Your task to perform on an android device: Search for a 4k TV on Best Buy Image 0: 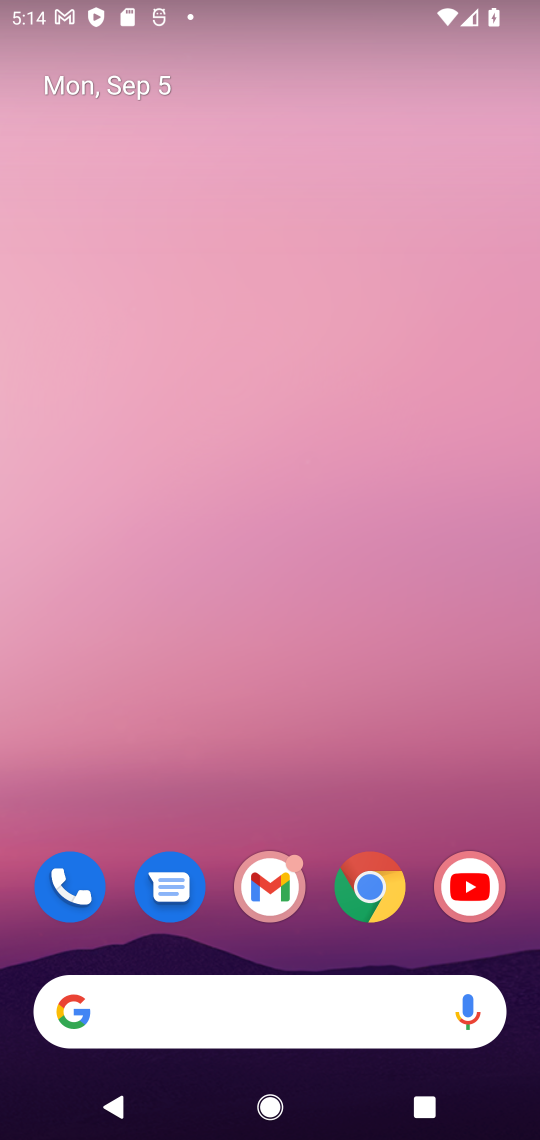
Step 0: drag from (278, 644) to (210, 70)
Your task to perform on an android device: Search for a 4k TV on Best Buy Image 1: 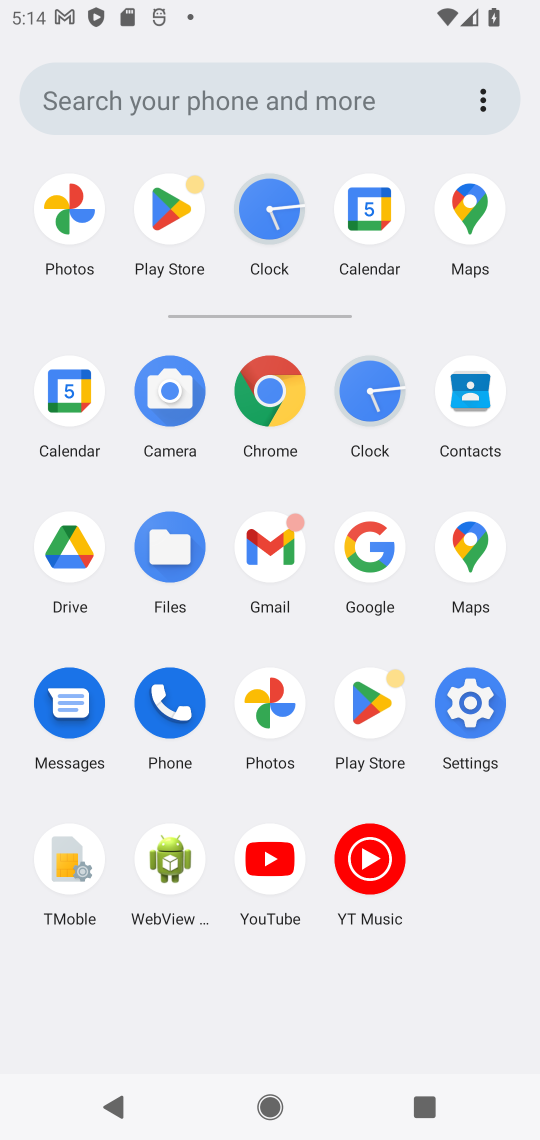
Step 1: click (269, 392)
Your task to perform on an android device: Search for a 4k TV on Best Buy Image 2: 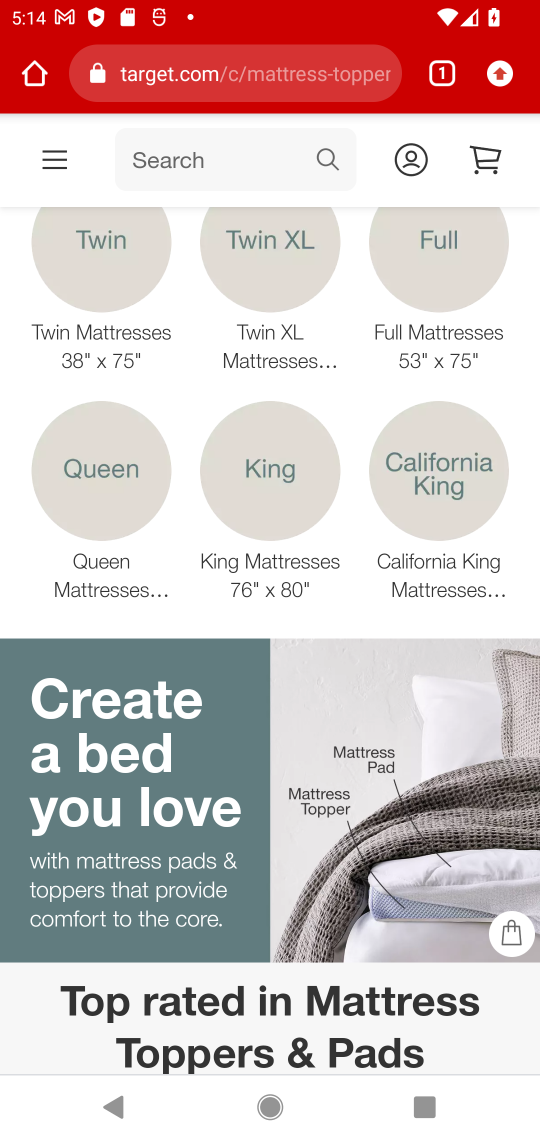
Step 2: click (271, 66)
Your task to perform on an android device: Search for a 4k TV on Best Buy Image 3: 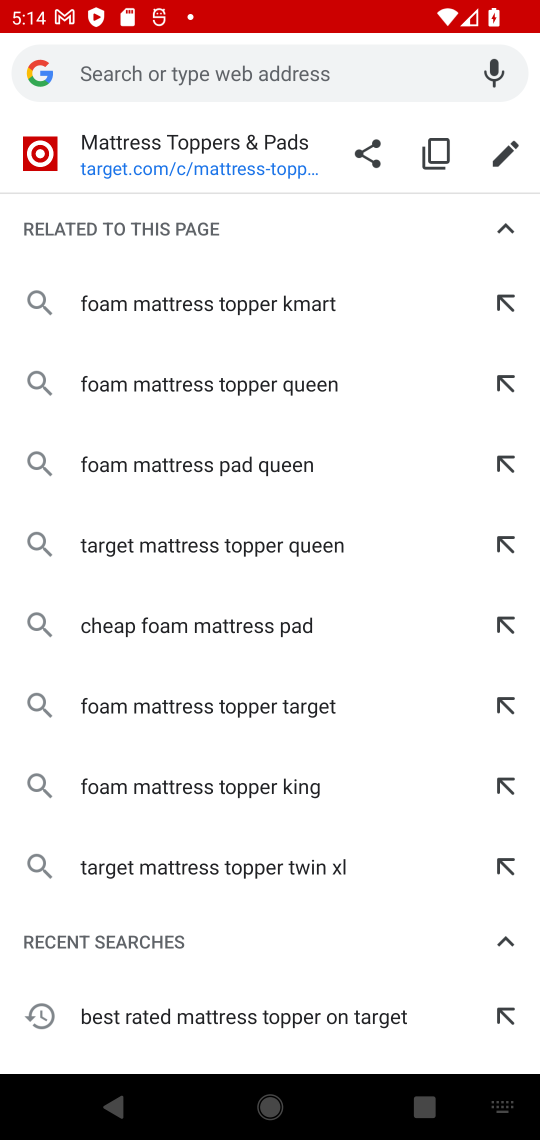
Step 3: type "4k TV on Best Buy"
Your task to perform on an android device: Search for a 4k TV on Best Buy Image 4: 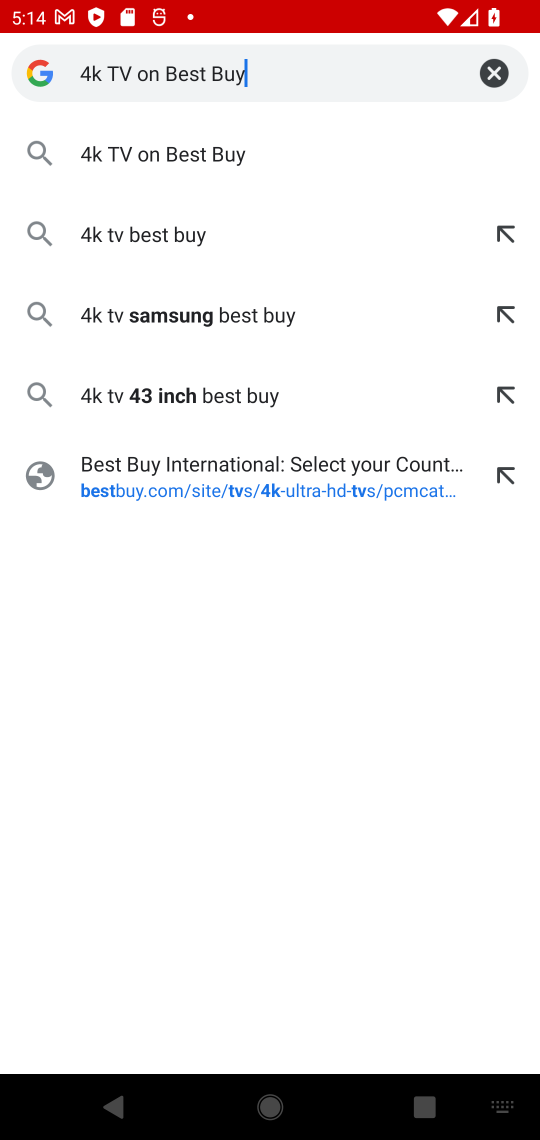
Step 4: press enter
Your task to perform on an android device: Search for a 4k TV on Best Buy Image 5: 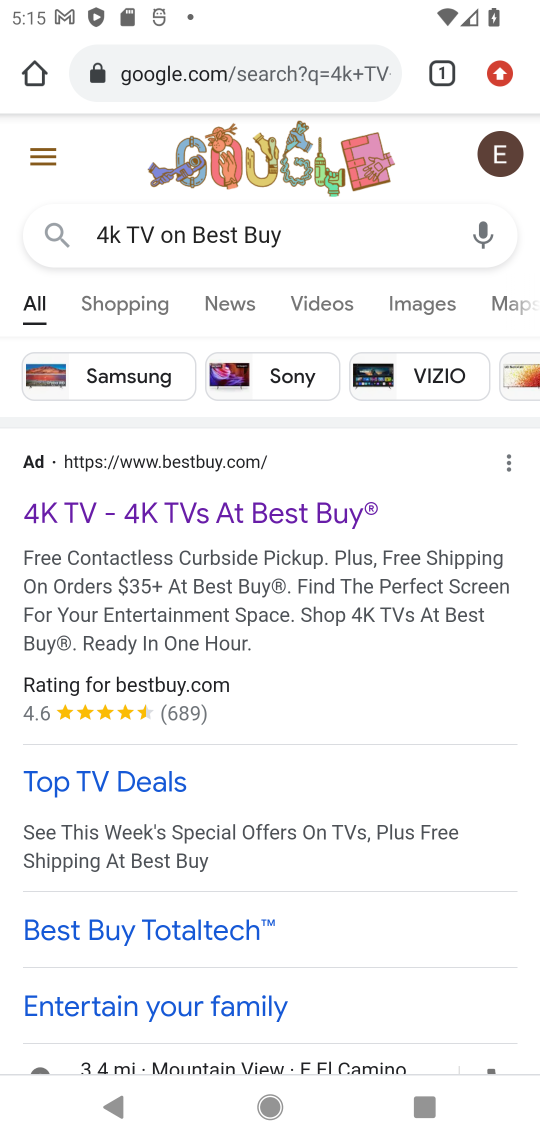
Step 5: drag from (380, 874) to (437, 183)
Your task to perform on an android device: Search for a 4k TV on Best Buy Image 6: 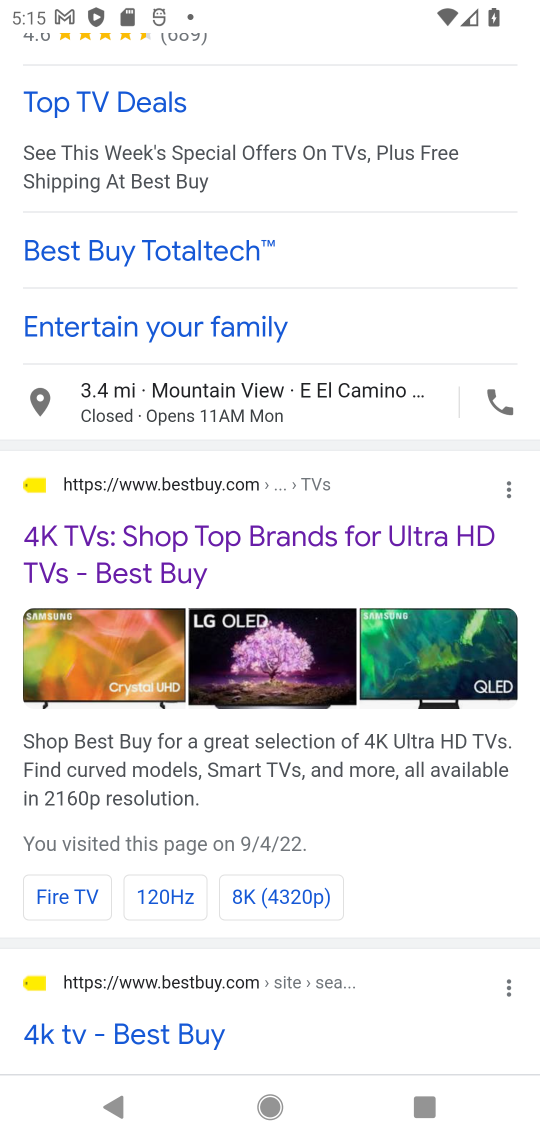
Step 6: click (140, 535)
Your task to perform on an android device: Search for a 4k TV on Best Buy Image 7: 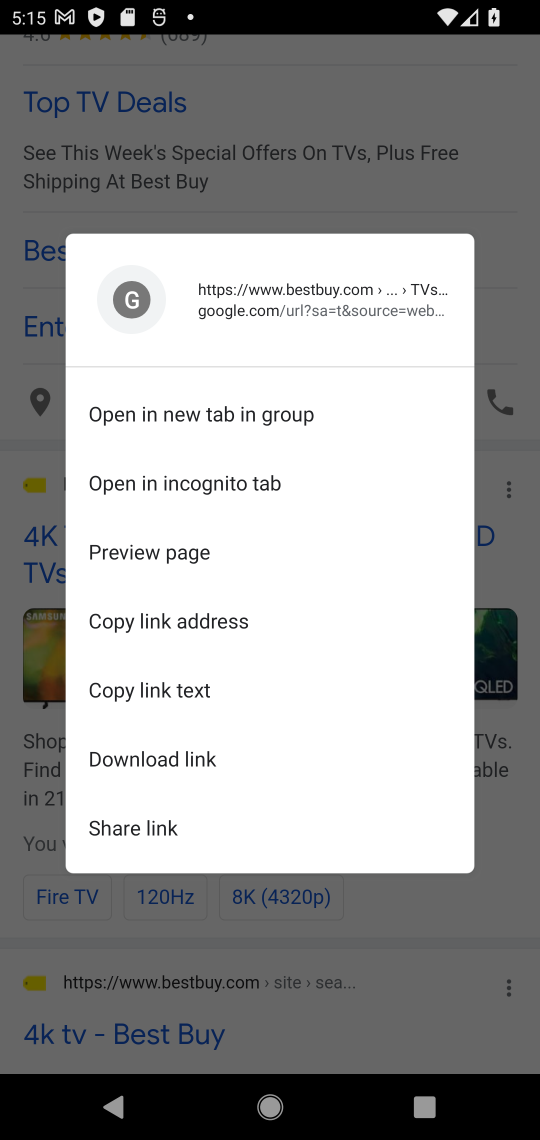
Step 7: click (25, 566)
Your task to perform on an android device: Search for a 4k TV on Best Buy Image 8: 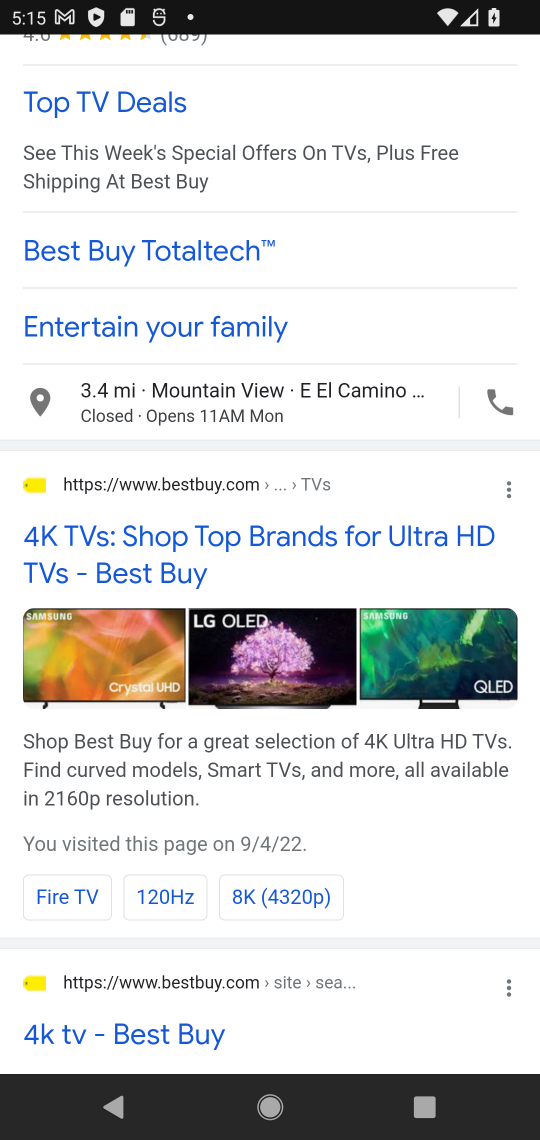
Step 8: click (62, 560)
Your task to perform on an android device: Search for a 4k TV on Best Buy Image 9: 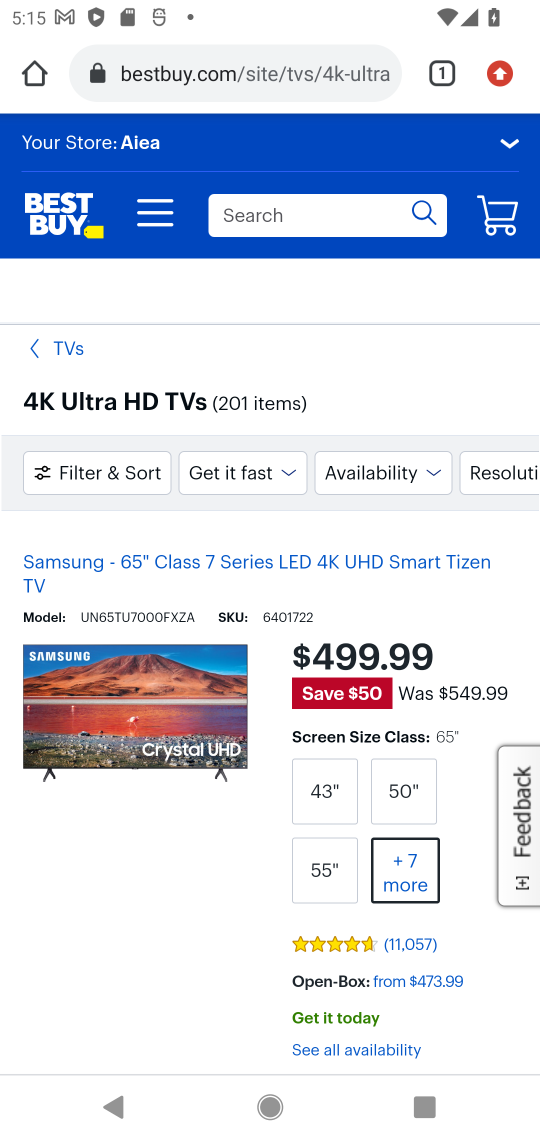
Step 9: task complete